Your task to perform on an android device: Open privacy settings Image 0: 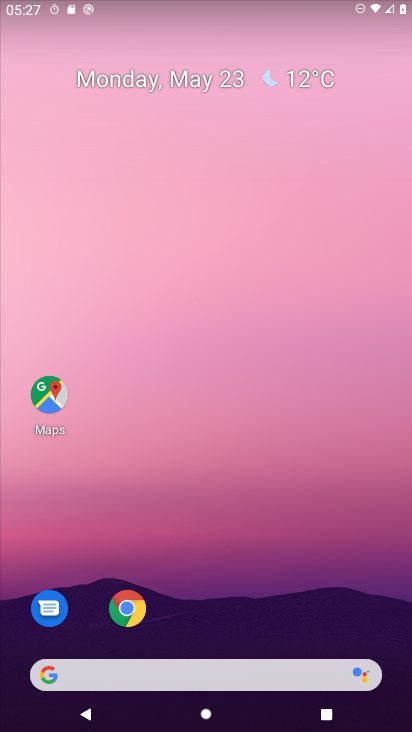
Step 0: drag from (321, 553) to (233, 0)
Your task to perform on an android device: Open privacy settings Image 1: 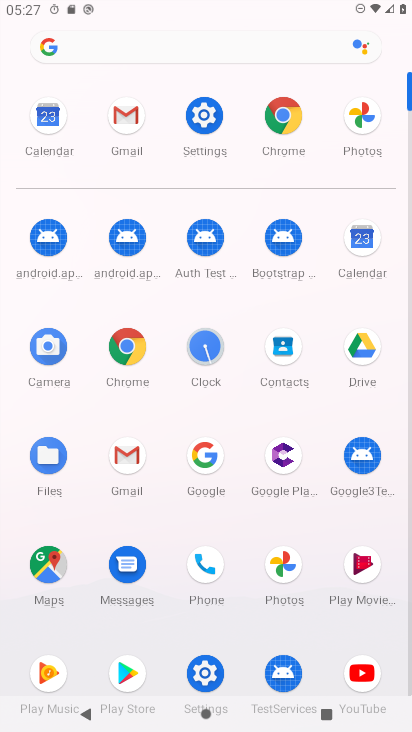
Step 1: click (212, 123)
Your task to perform on an android device: Open privacy settings Image 2: 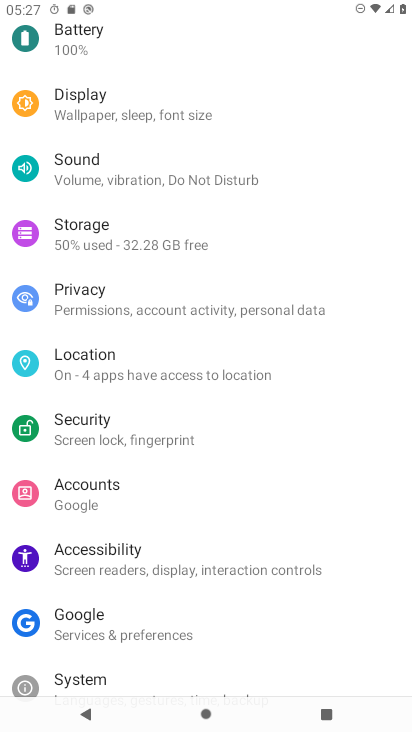
Step 2: click (157, 294)
Your task to perform on an android device: Open privacy settings Image 3: 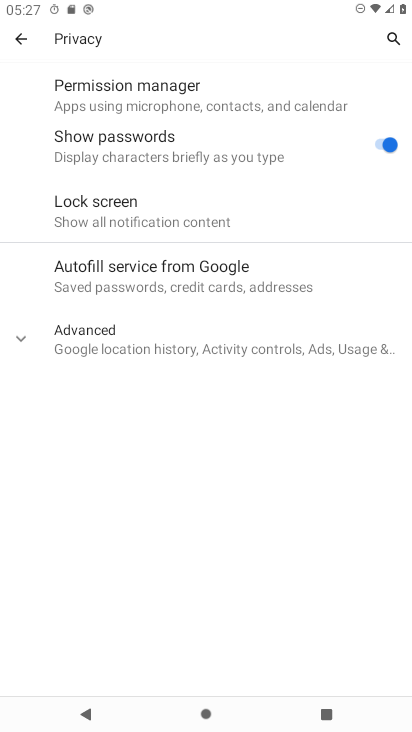
Step 3: task complete